Your task to perform on an android device: read, delete, or share a saved page in the chrome app Image 0: 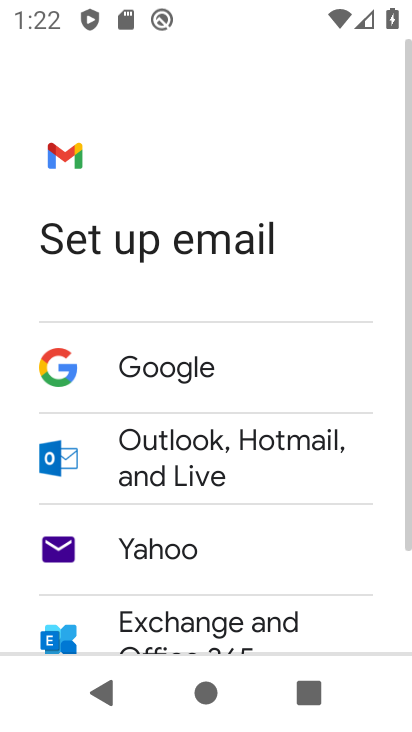
Step 0: task complete